Your task to perform on an android device: What's on my calendar tomorrow? Image 0: 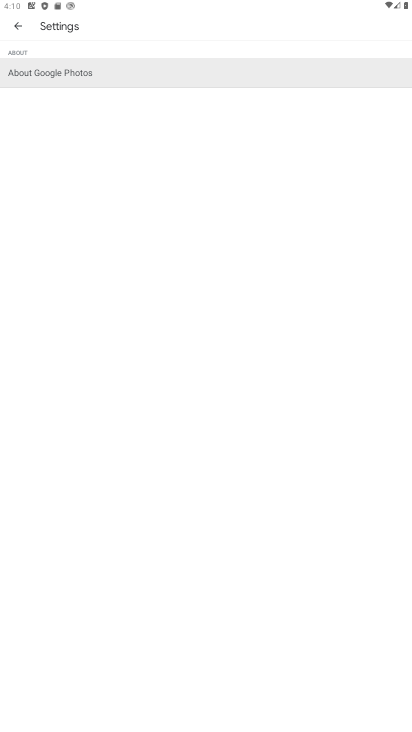
Step 0: press back button
Your task to perform on an android device: What's on my calendar tomorrow? Image 1: 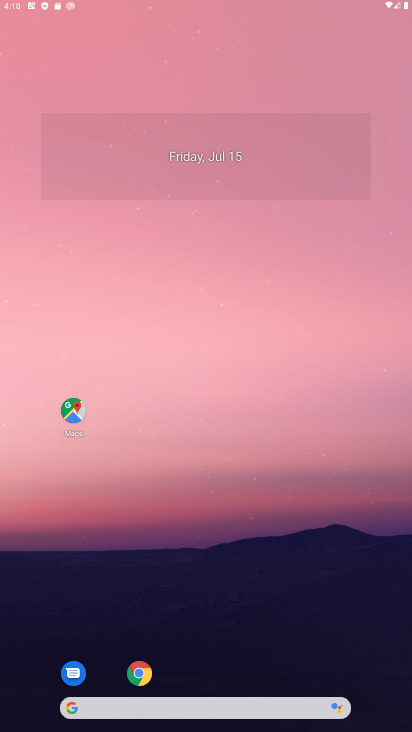
Step 1: press home button
Your task to perform on an android device: What's on my calendar tomorrow? Image 2: 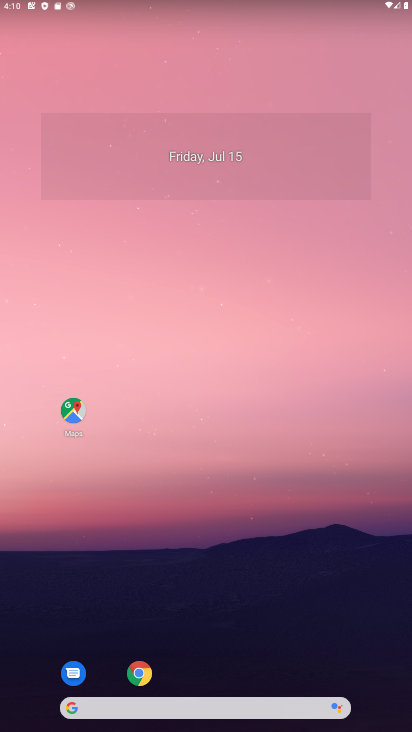
Step 2: drag from (204, 673) to (213, 144)
Your task to perform on an android device: What's on my calendar tomorrow? Image 3: 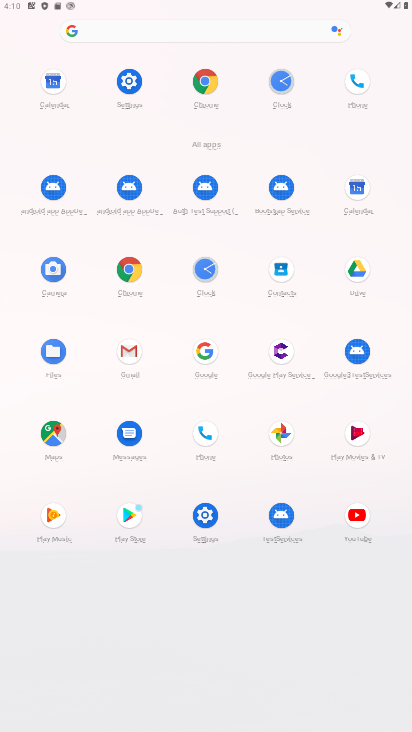
Step 3: click (368, 185)
Your task to perform on an android device: What's on my calendar tomorrow? Image 4: 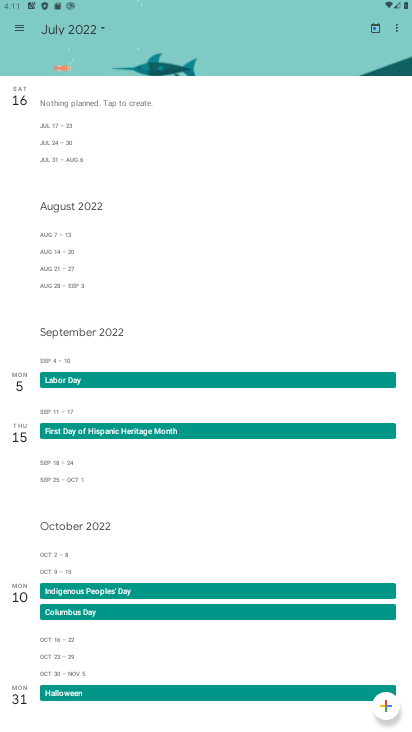
Step 4: task complete